Your task to perform on an android device: Open the Play Movies app and select the watchlist tab. Image 0: 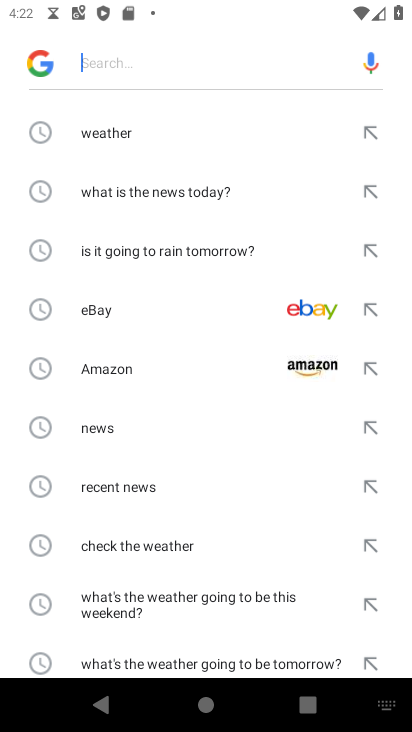
Step 0: press home button
Your task to perform on an android device: Open the Play Movies app and select the watchlist tab. Image 1: 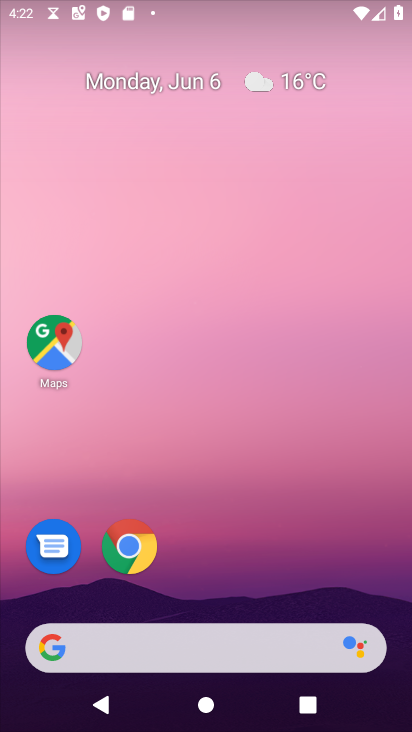
Step 1: drag from (338, 413) to (407, 406)
Your task to perform on an android device: Open the Play Movies app and select the watchlist tab. Image 2: 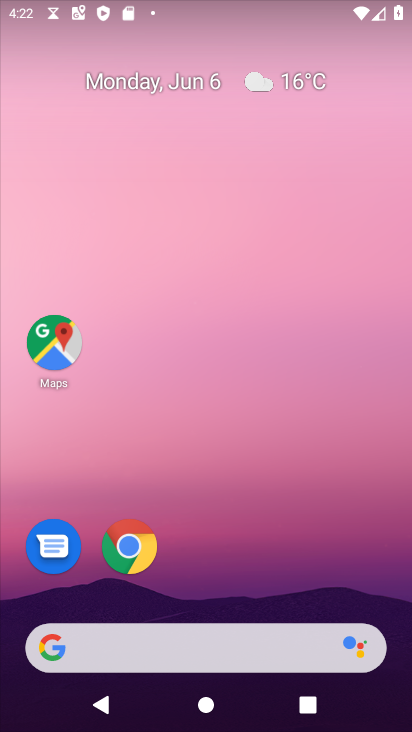
Step 2: drag from (293, 654) to (342, 59)
Your task to perform on an android device: Open the Play Movies app and select the watchlist tab. Image 3: 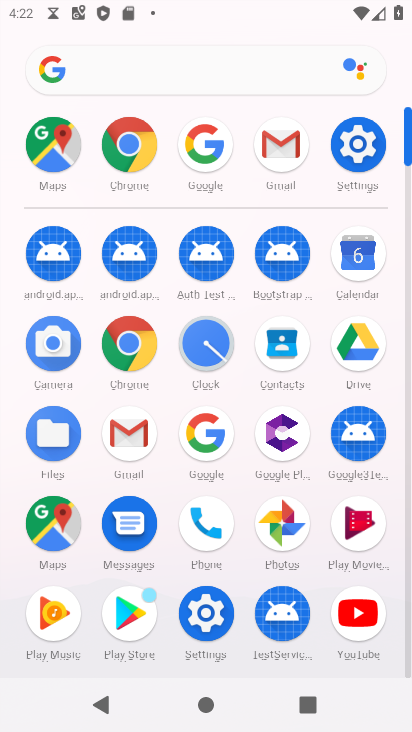
Step 3: drag from (392, 618) to (410, 235)
Your task to perform on an android device: Open the Play Movies app and select the watchlist tab. Image 4: 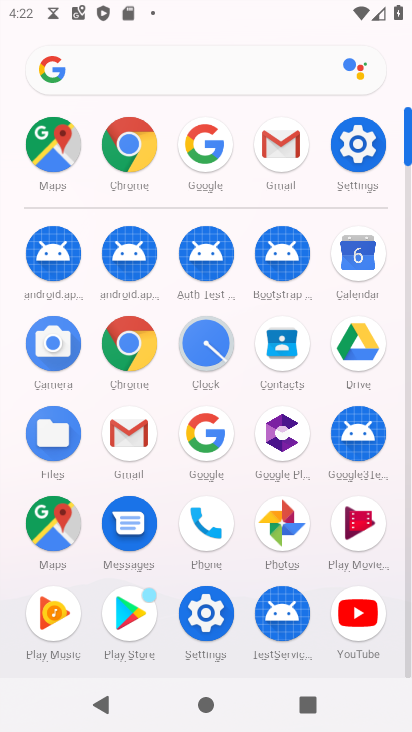
Step 4: click (362, 548)
Your task to perform on an android device: Open the Play Movies app and select the watchlist tab. Image 5: 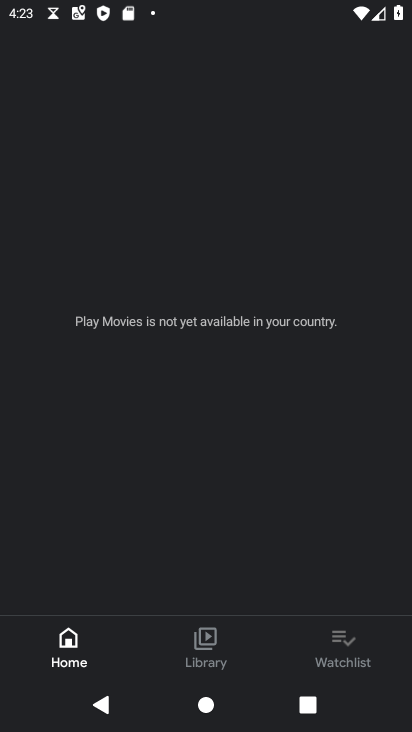
Step 5: click (347, 644)
Your task to perform on an android device: Open the Play Movies app and select the watchlist tab. Image 6: 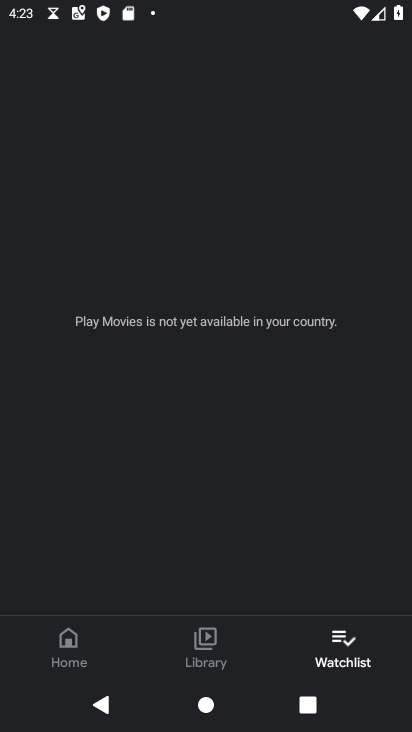
Step 6: task complete